Your task to perform on an android device: Open network settings Image 0: 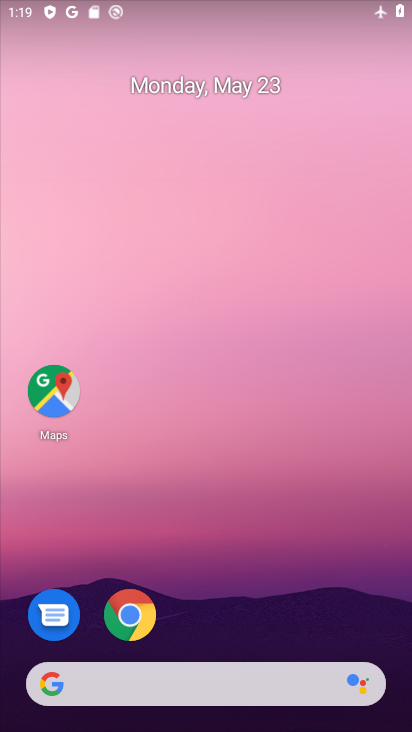
Step 0: drag from (245, 643) to (220, 189)
Your task to perform on an android device: Open network settings Image 1: 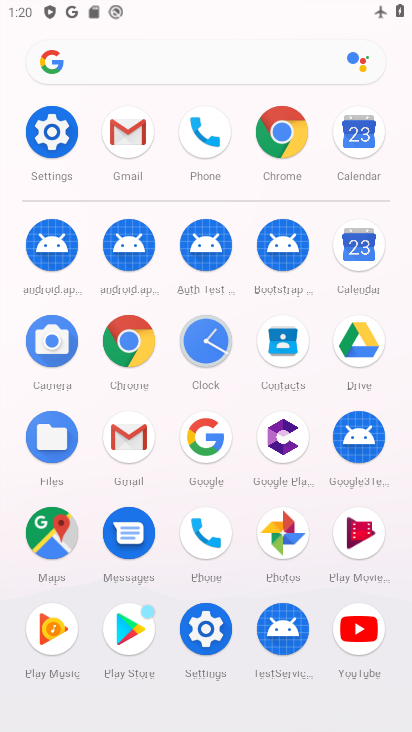
Step 1: click (212, 643)
Your task to perform on an android device: Open network settings Image 2: 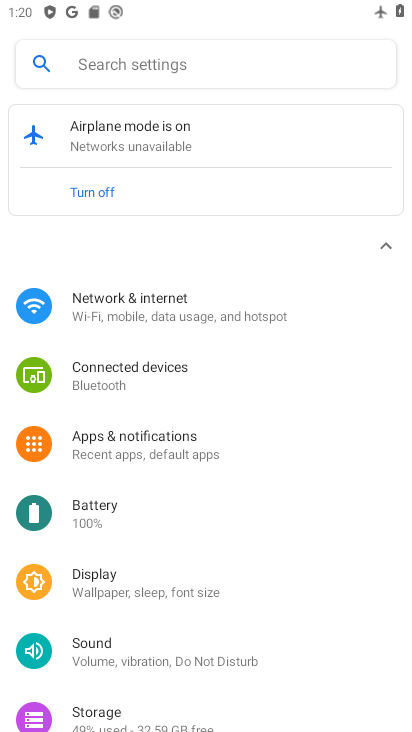
Step 2: click (140, 322)
Your task to perform on an android device: Open network settings Image 3: 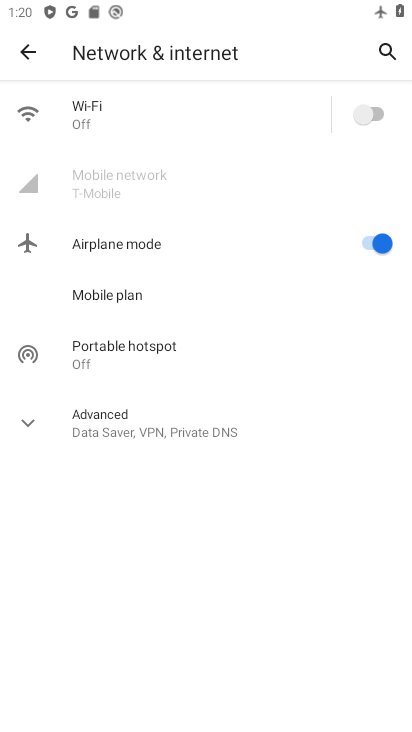
Step 3: task complete